Your task to perform on an android device: check google app version Image 0: 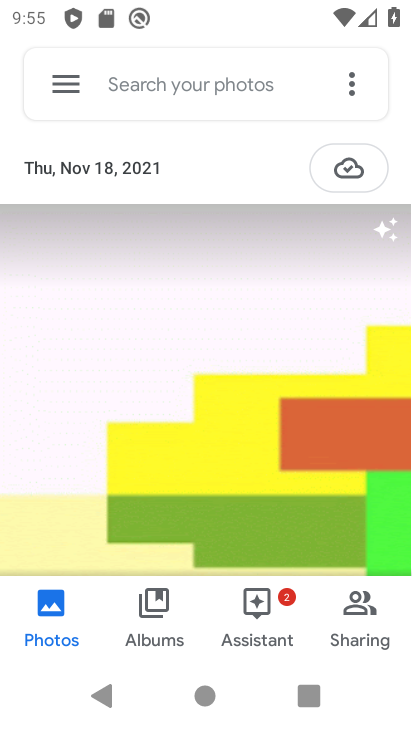
Step 0: press home button
Your task to perform on an android device: check google app version Image 1: 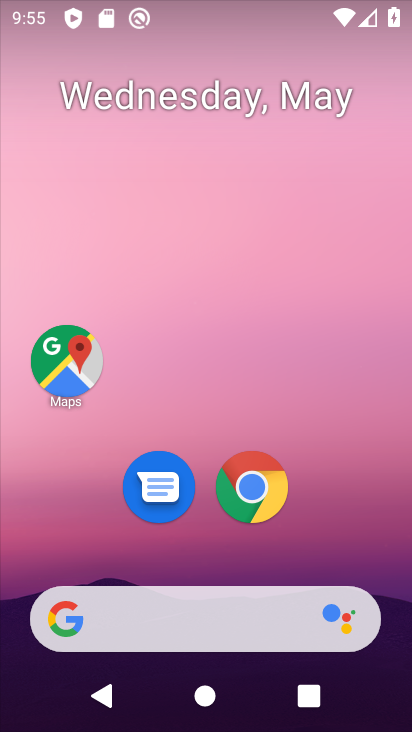
Step 1: drag from (281, 655) to (177, 137)
Your task to perform on an android device: check google app version Image 2: 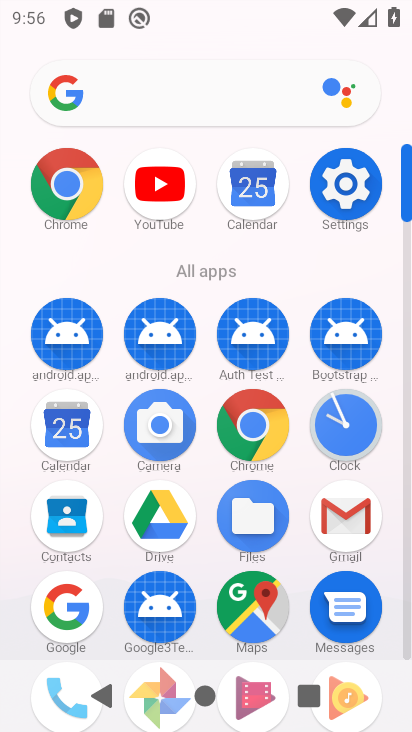
Step 2: click (80, 194)
Your task to perform on an android device: check google app version Image 3: 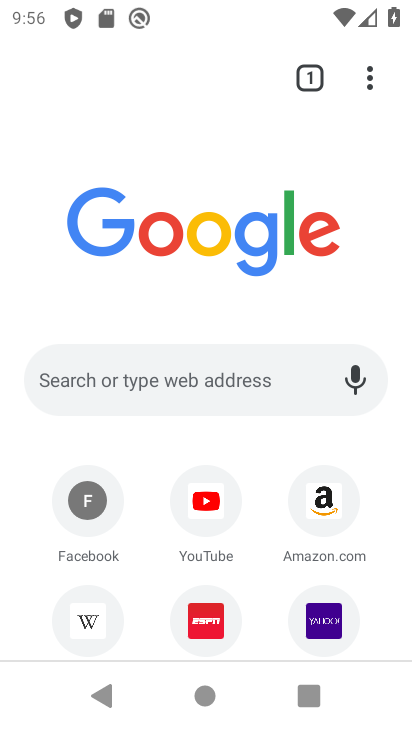
Step 3: click (370, 93)
Your task to perform on an android device: check google app version Image 4: 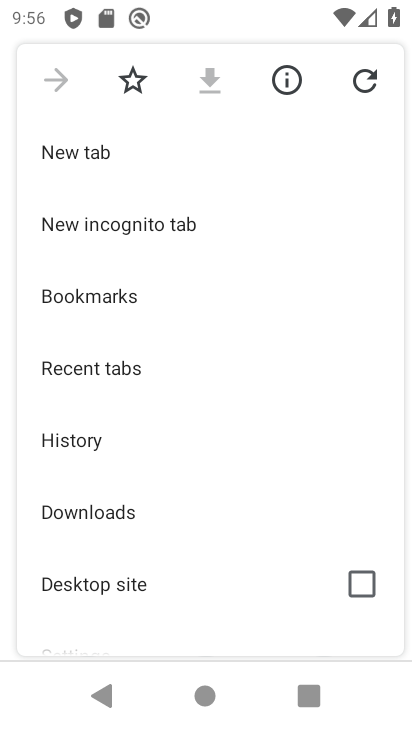
Step 4: drag from (136, 589) to (177, 360)
Your task to perform on an android device: check google app version Image 5: 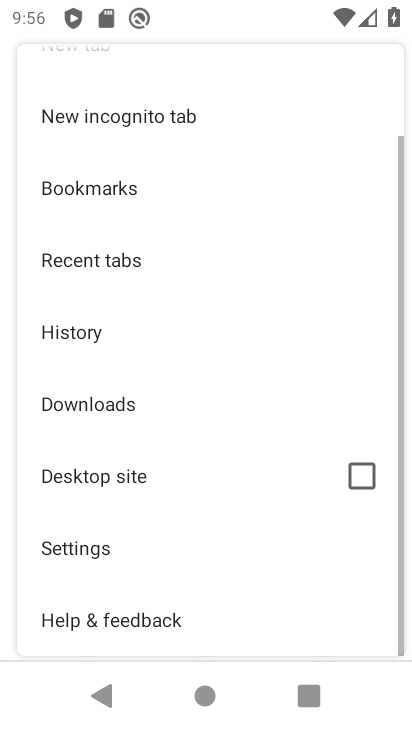
Step 5: click (89, 562)
Your task to perform on an android device: check google app version Image 6: 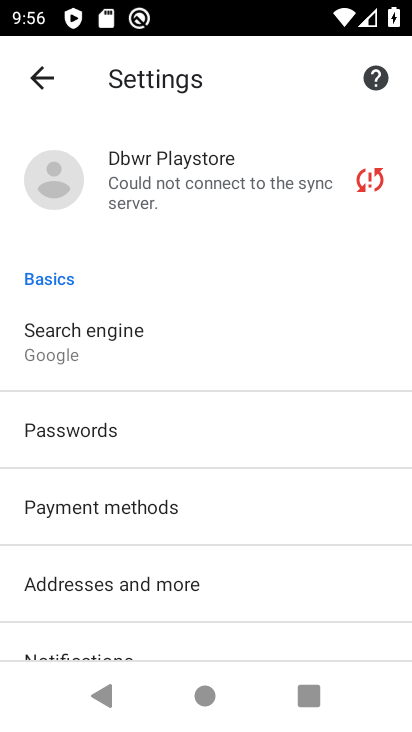
Step 6: task complete